Your task to perform on an android device: open app "Flipkart Online Shopping App" Image 0: 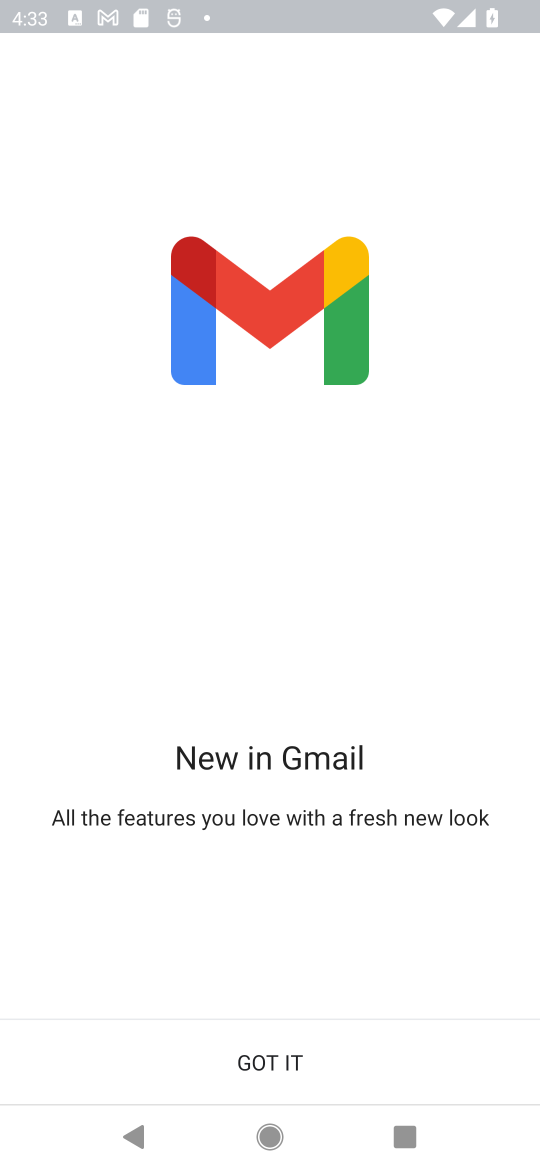
Step 0: press home button
Your task to perform on an android device: open app "Flipkart Online Shopping App" Image 1: 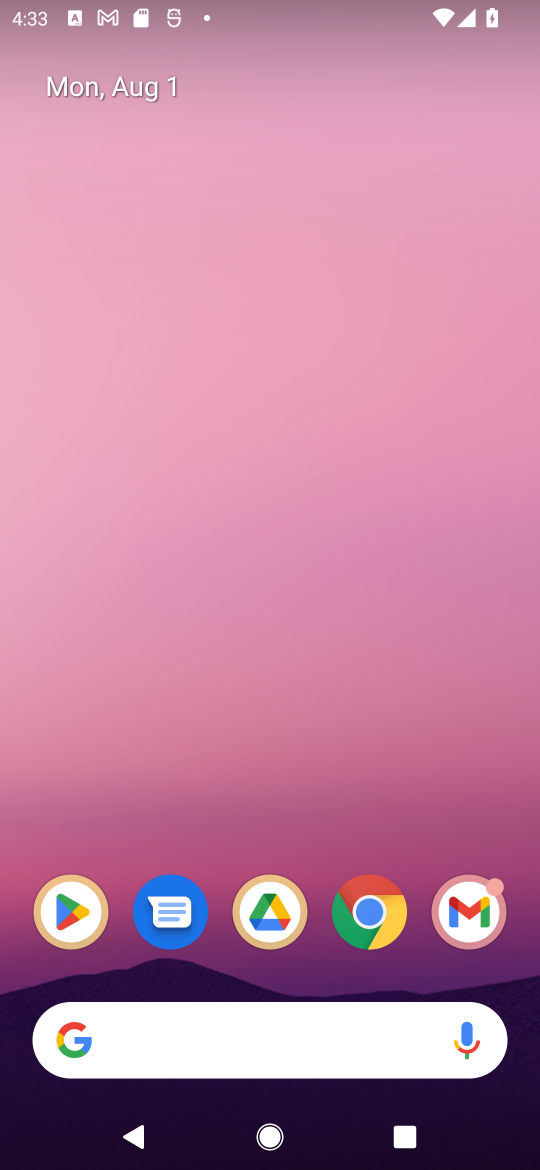
Step 1: click (60, 927)
Your task to perform on an android device: open app "Flipkart Online Shopping App" Image 2: 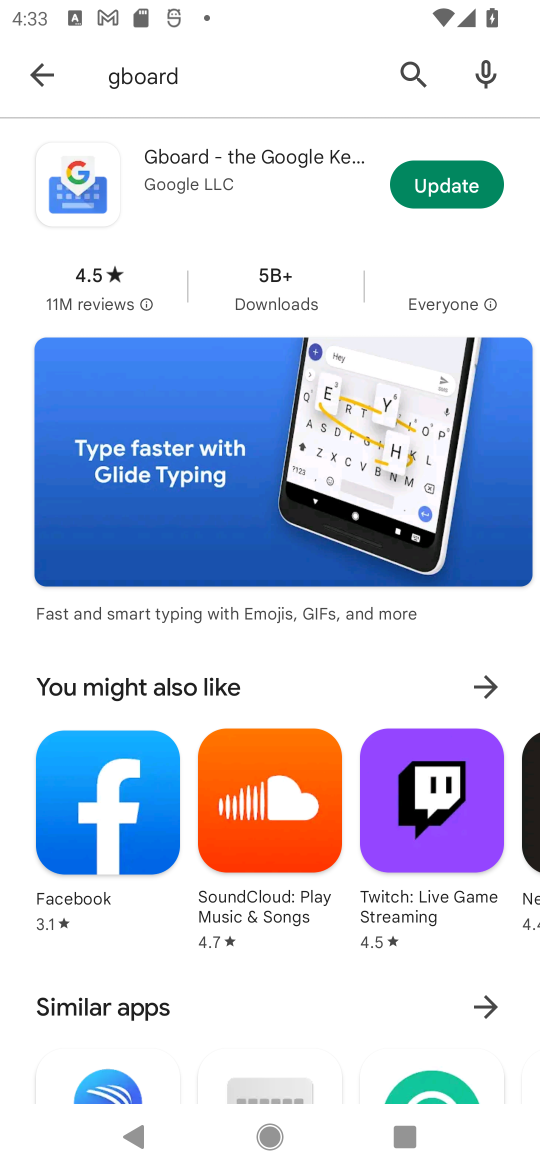
Step 2: click (417, 73)
Your task to perform on an android device: open app "Flipkart Online Shopping App" Image 3: 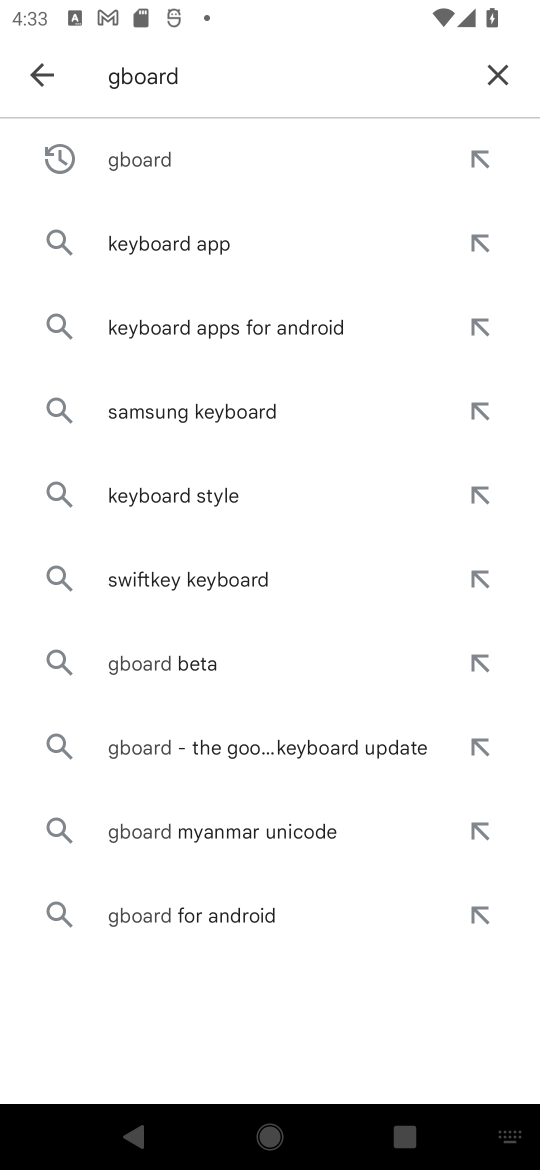
Step 3: click (493, 66)
Your task to perform on an android device: open app "Flipkart Online Shopping App" Image 4: 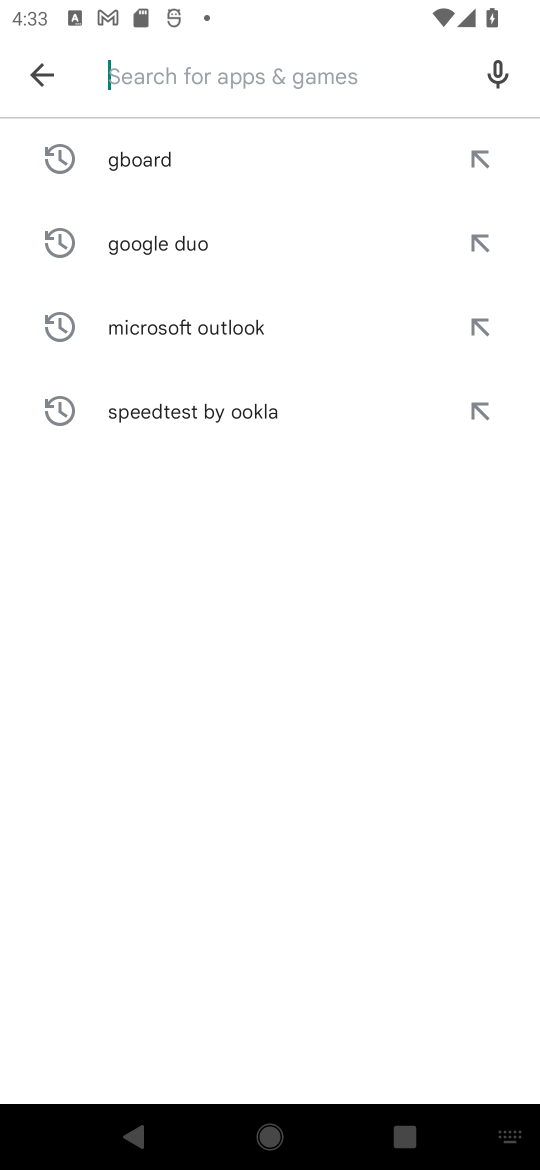
Step 4: type "Flipkart Online Shopping App"
Your task to perform on an android device: open app "Flipkart Online Shopping App" Image 5: 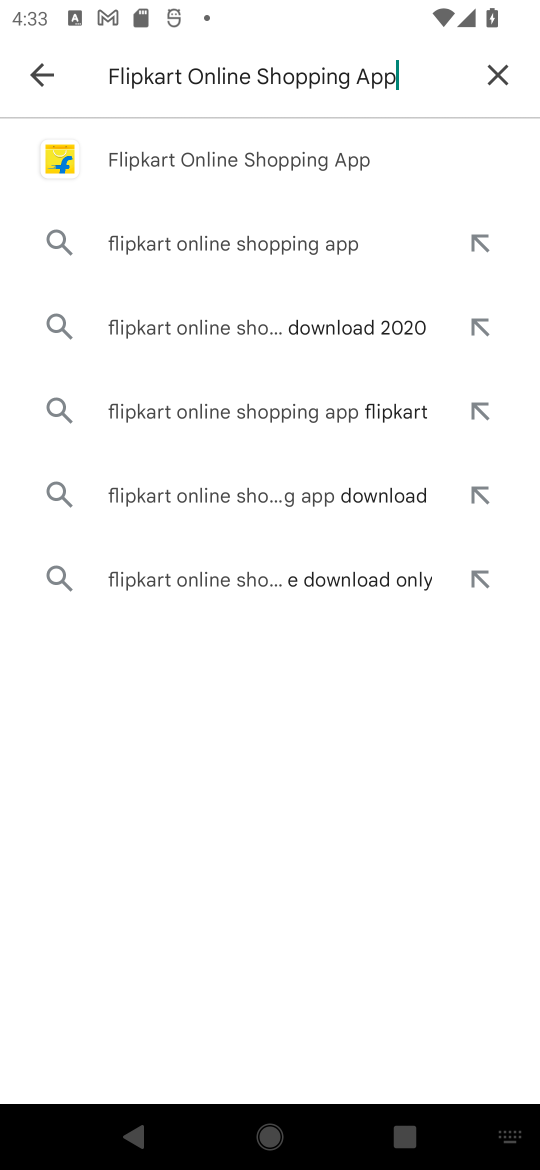
Step 5: click (165, 175)
Your task to perform on an android device: open app "Flipkart Online Shopping App" Image 6: 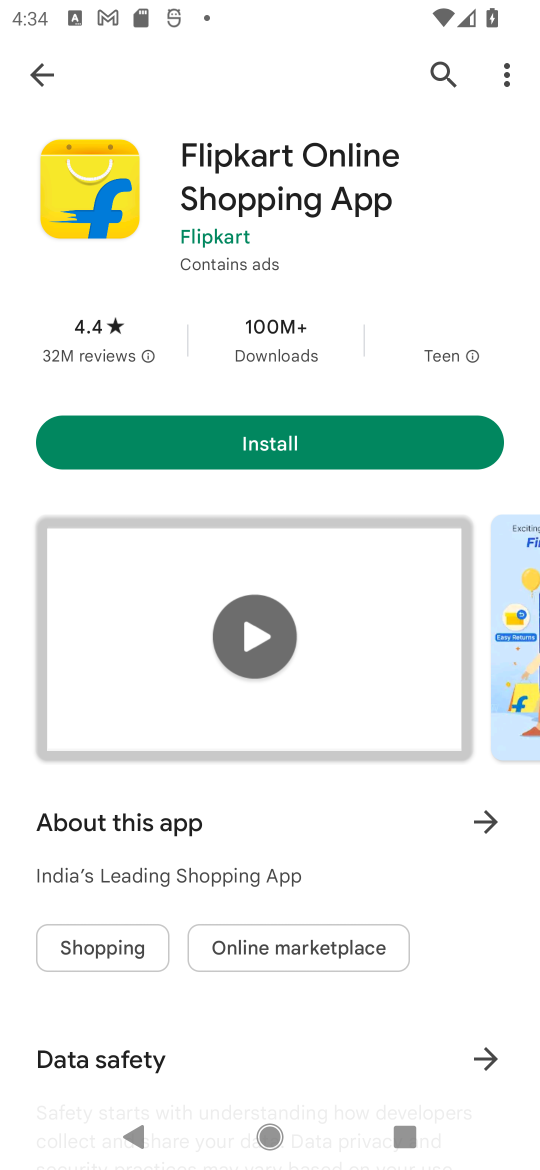
Step 6: task complete